Your task to perform on an android device: turn smart compose on in the gmail app Image 0: 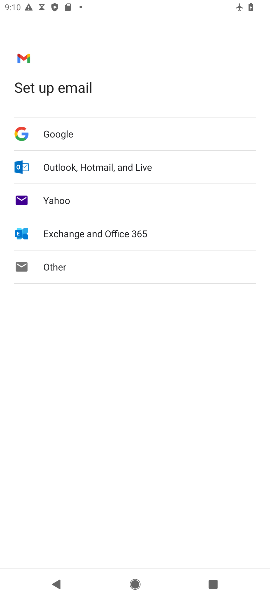
Step 0: press home button
Your task to perform on an android device: turn smart compose on in the gmail app Image 1: 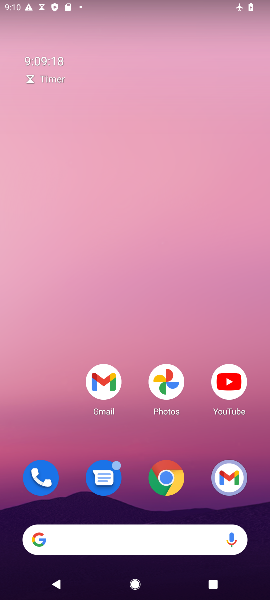
Step 1: click (106, 387)
Your task to perform on an android device: turn smart compose on in the gmail app Image 2: 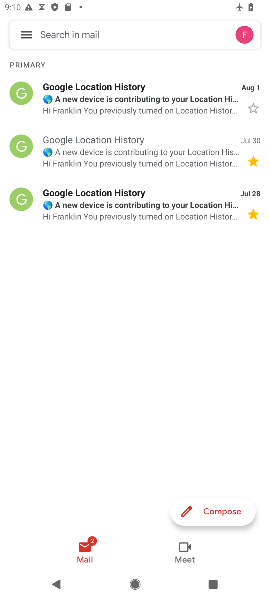
Step 2: click (24, 30)
Your task to perform on an android device: turn smart compose on in the gmail app Image 3: 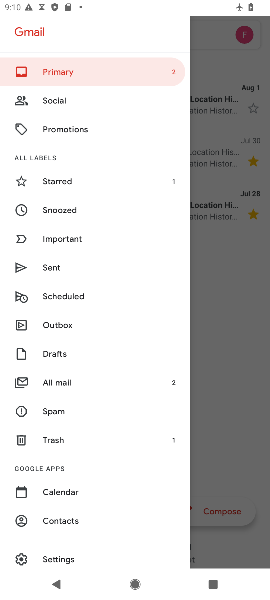
Step 3: click (79, 557)
Your task to perform on an android device: turn smart compose on in the gmail app Image 4: 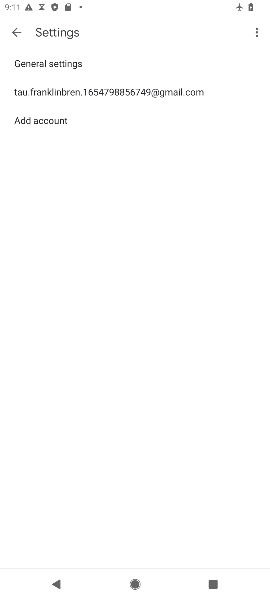
Step 4: click (151, 83)
Your task to perform on an android device: turn smart compose on in the gmail app Image 5: 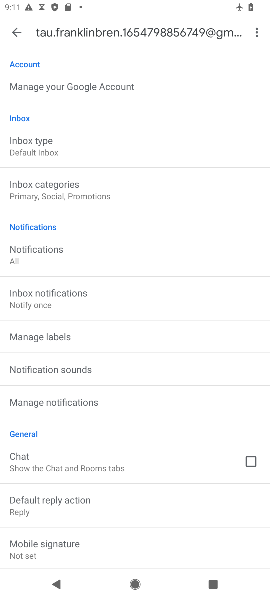
Step 5: task complete